Your task to perform on an android device: turn off airplane mode Image 0: 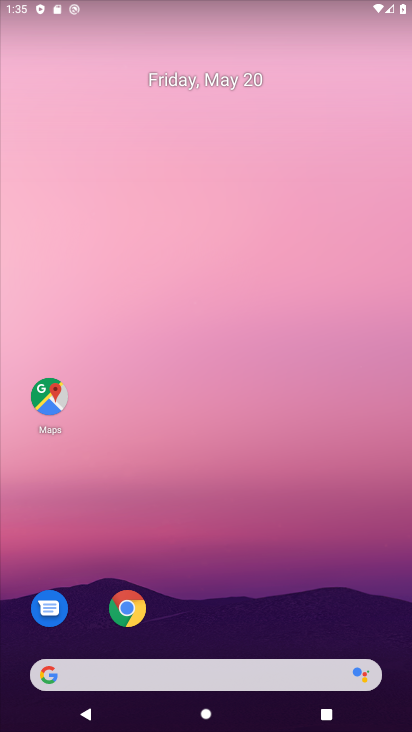
Step 0: drag from (247, 566) to (198, 35)
Your task to perform on an android device: turn off airplane mode Image 1: 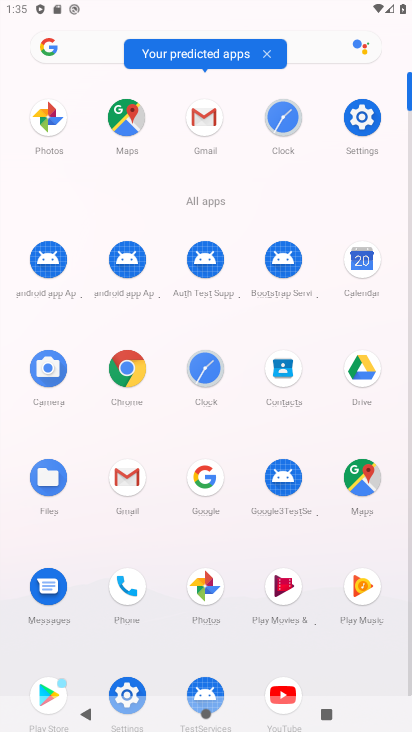
Step 1: click (362, 118)
Your task to perform on an android device: turn off airplane mode Image 2: 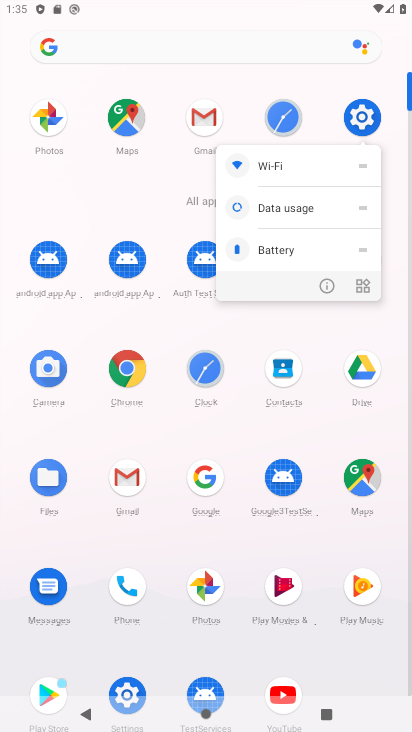
Step 2: click (360, 114)
Your task to perform on an android device: turn off airplane mode Image 3: 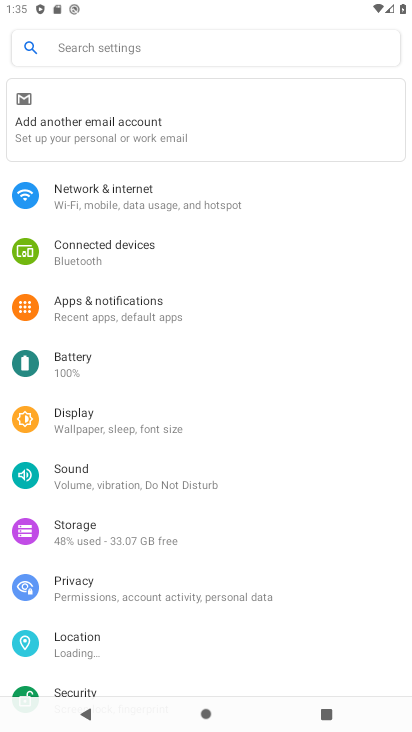
Step 3: click (173, 204)
Your task to perform on an android device: turn off airplane mode Image 4: 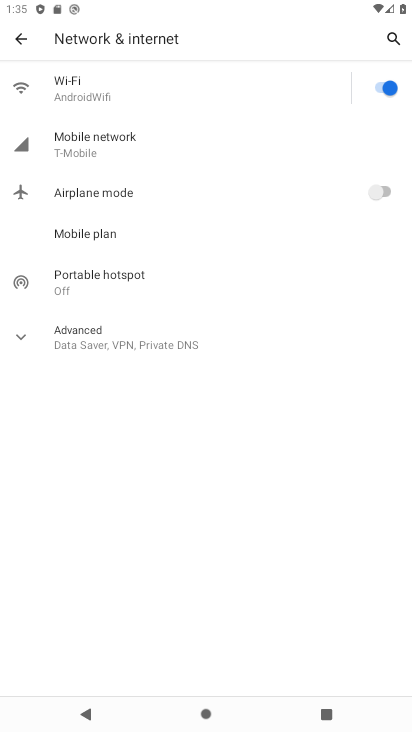
Step 4: task complete